Your task to perform on an android device: Open Android settings Image 0: 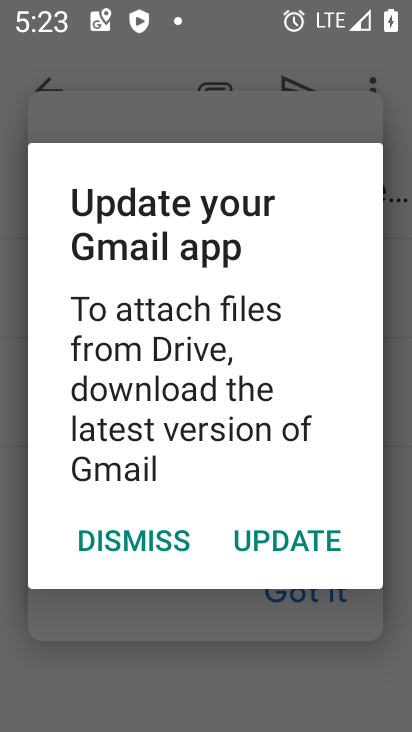
Step 0: press home button
Your task to perform on an android device: Open Android settings Image 1: 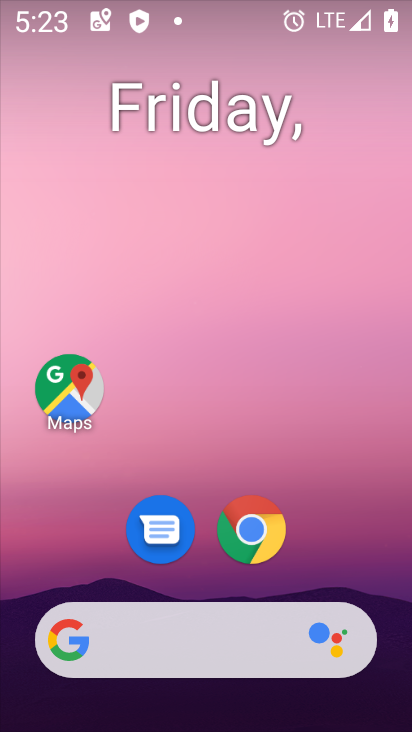
Step 1: drag from (331, 564) to (203, 16)
Your task to perform on an android device: Open Android settings Image 2: 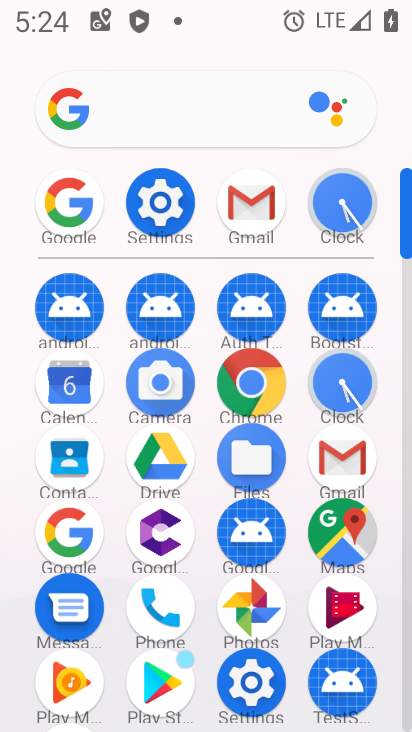
Step 2: click (163, 211)
Your task to perform on an android device: Open Android settings Image 3: 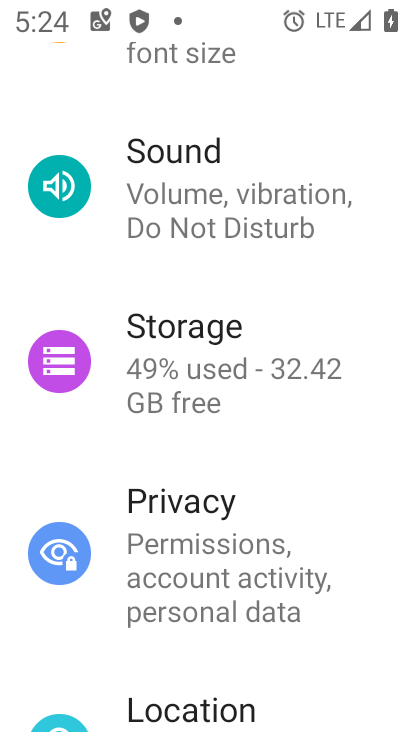
Step 3: drag from (269, 691) to (274, 121)
Your task to perform on an android device: Open Android settings Image 4: 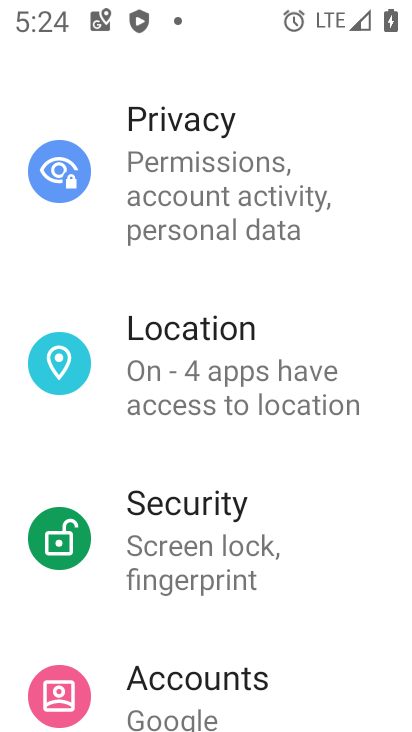
Step 4: drag from (303, 660) to (287, 153)
Your task to perform on an android device: Open Android settings Image 5: 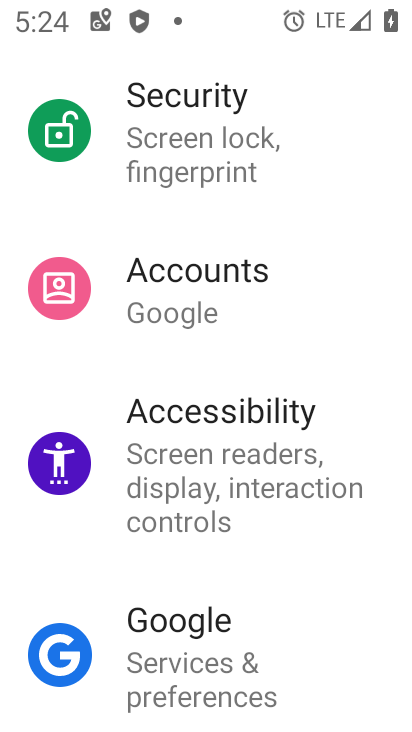
Step 5: drag from (297, 668) to (230, 110)
Your task to perform on an android device: Open Android settings Image 6: 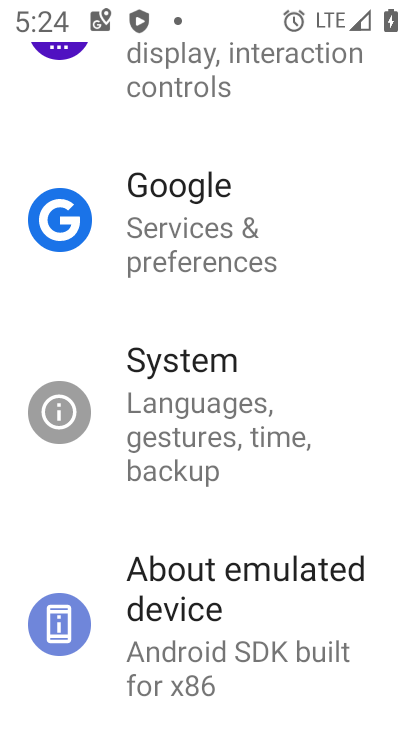
Step 6: click (226, 598)
Your task to perform on an android device: Open Android settings Image 7: 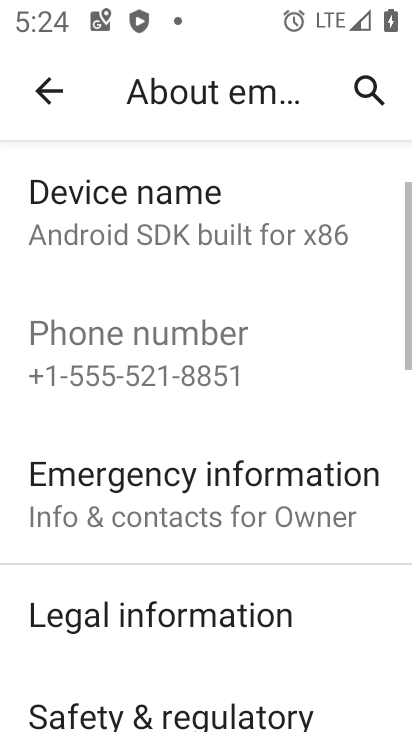
Step 7: drag from (199, 673) to (186, 169)
Your task to perform on an android device: Open Android settings Image 8: 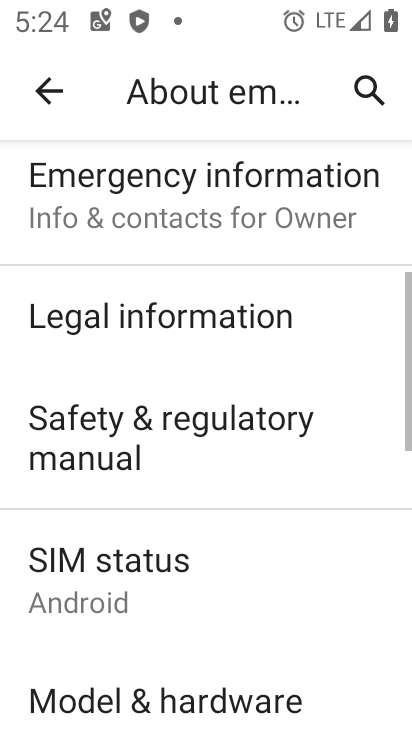
Step 8: drag from (197, 664) to (209, 155)
Your task to perform on an android device: Open Android settings Image 9: 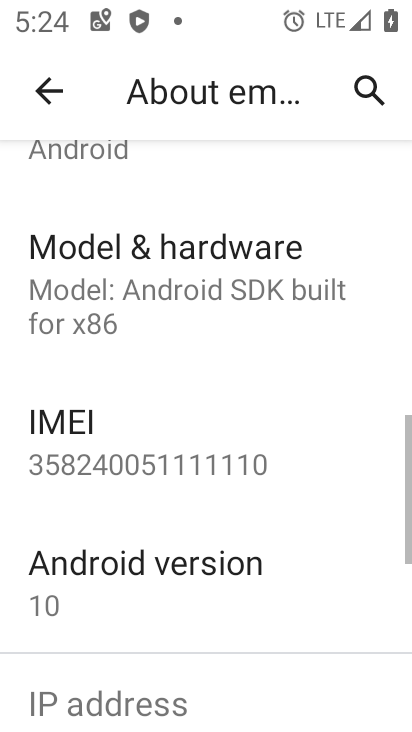
Step 9: click (186, 565)
Your task to perform on an android device: Open Android settings Image 10: 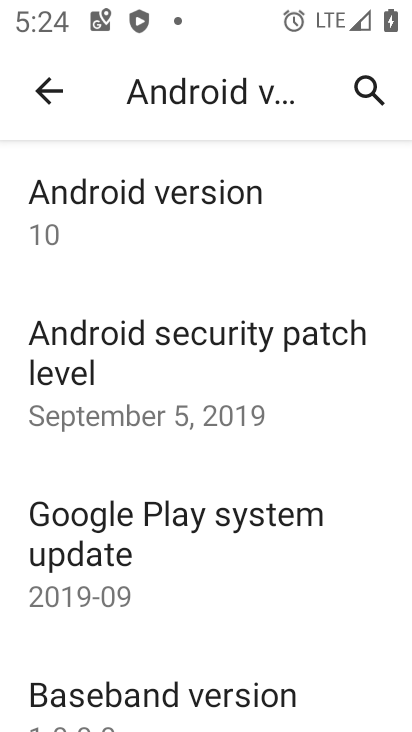
Step 10: task complete